Your task to perform on an android device: Find coffee shops on Maps Image 0: 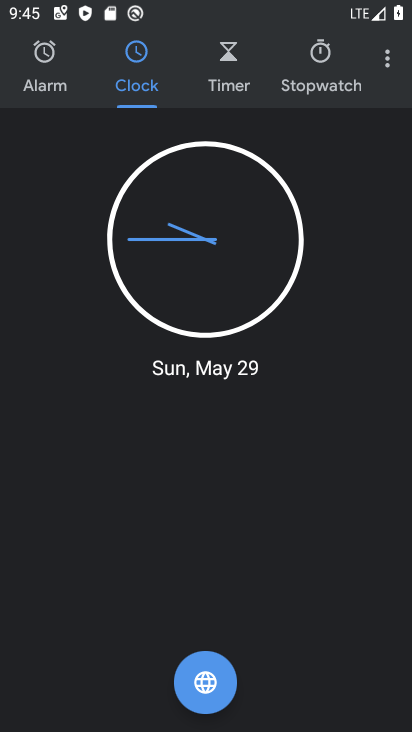
Step 0: press home button
Your task to perform on an android device: Find coffee shops on Maps Image 1: 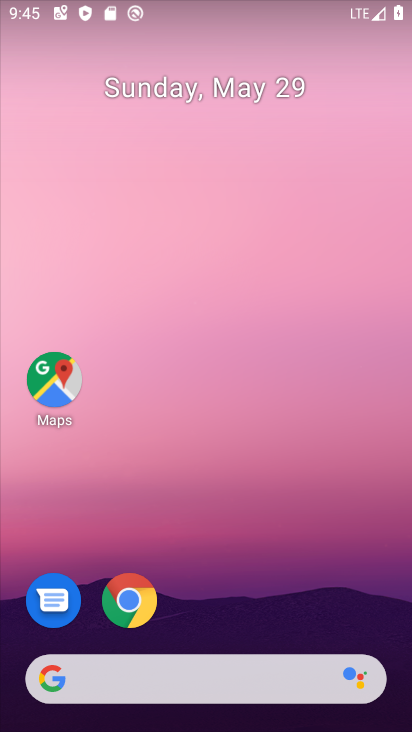
Step 1: click (43, 382)
Your task to perform on an android device: Find coffee shops on Maps Image 2: 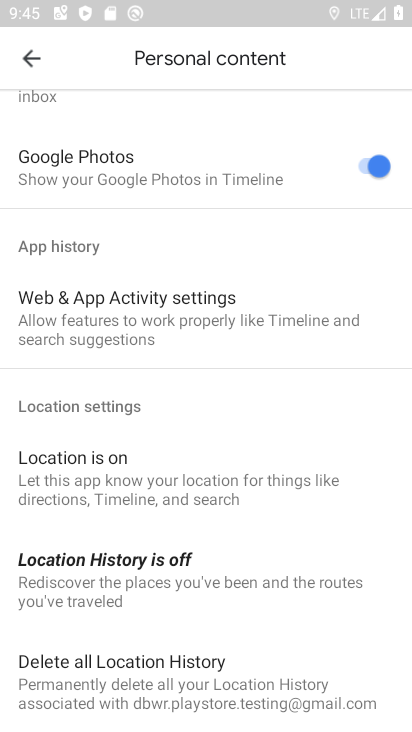
Step 2: click (28, 57)
Your task to perform on an android device: Find coffee shops on Maps Image 3: 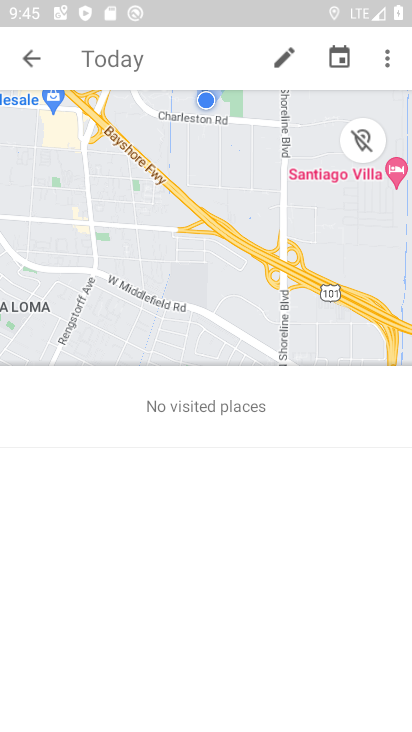
Step 3: click (26, 54)
Your task to perform on an android device: Find coffee shops on Maps Image 4: 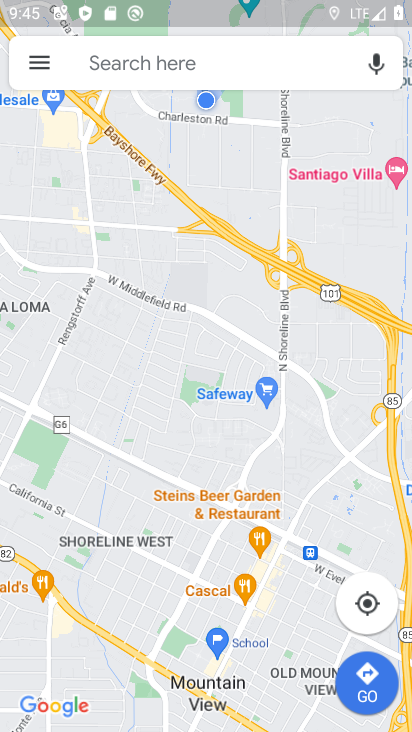
Step 4: click (100, 54)
Your task to perform on an android device: Find coffee shops on Maps Image 5: 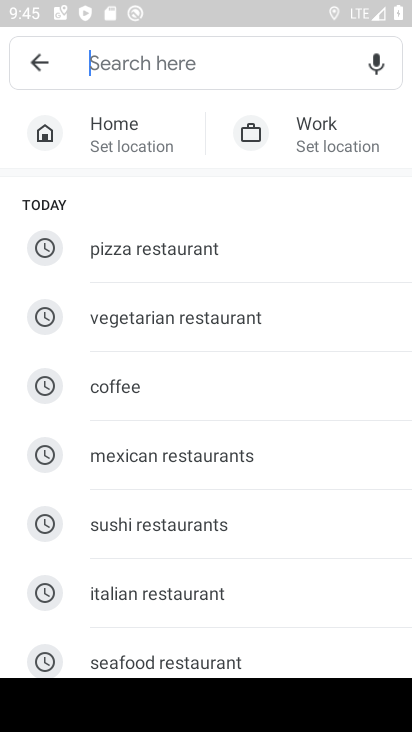
Step 5: type " coffee shops "
Your task to perform on an android device: Find coffee shops on Maps Image 6: 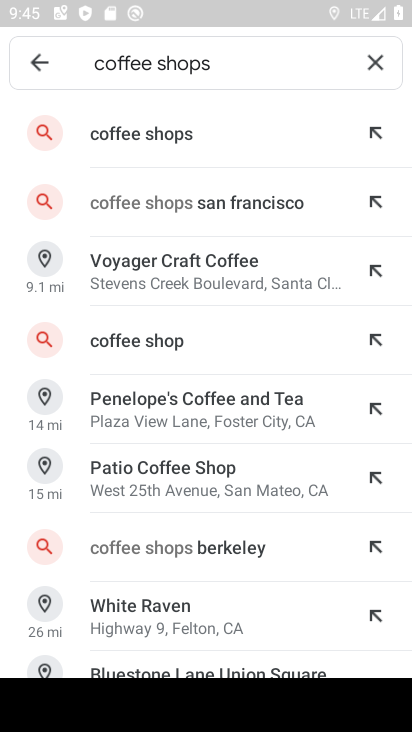
Step 6: click (140, 135)
Your task to perform on an android device: Find coffee shops on Maps Image 7: 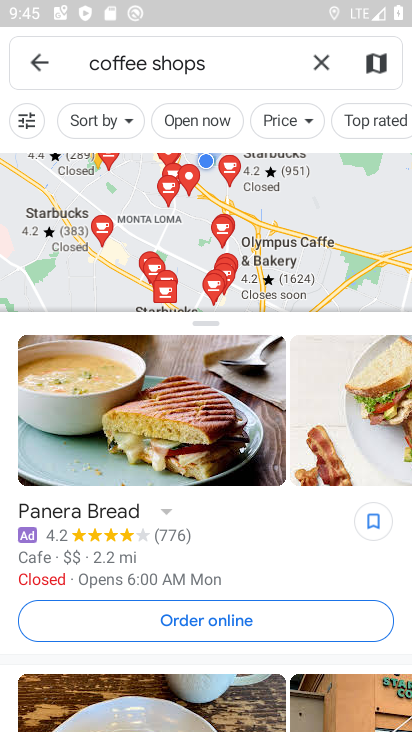
Step 7: task complete